Your task to perform on an android device: delete a single message in the gmail app Image 0: 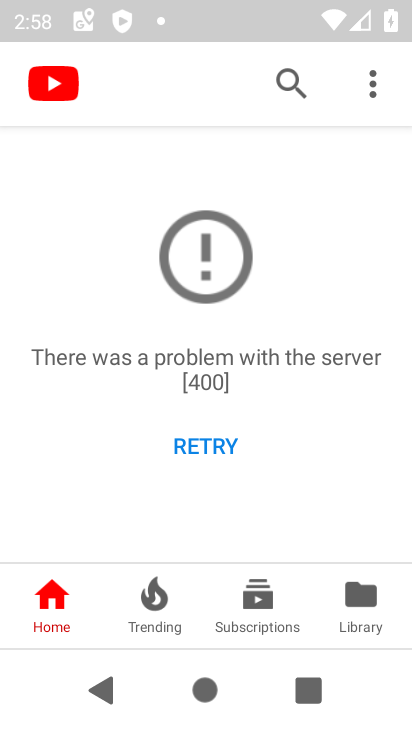
Step 0: press home button
Your task to perform on an android device: delete a single message in the gmail app Image 1: 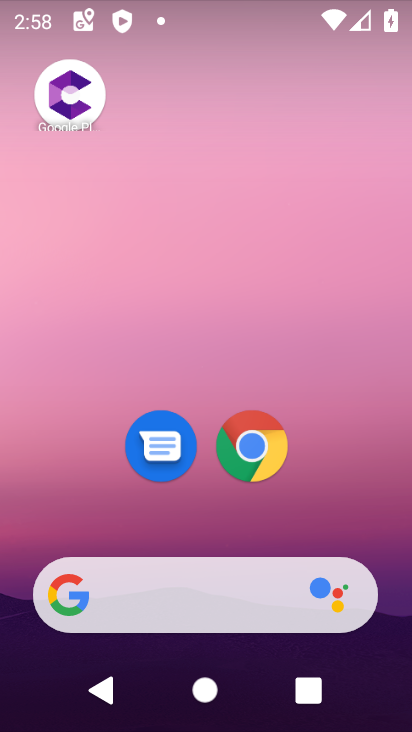
Step 1: drag from (68, 542) to (144, 163)
Your task to perform on an android device: delete a single message in the gmail app Image 2: 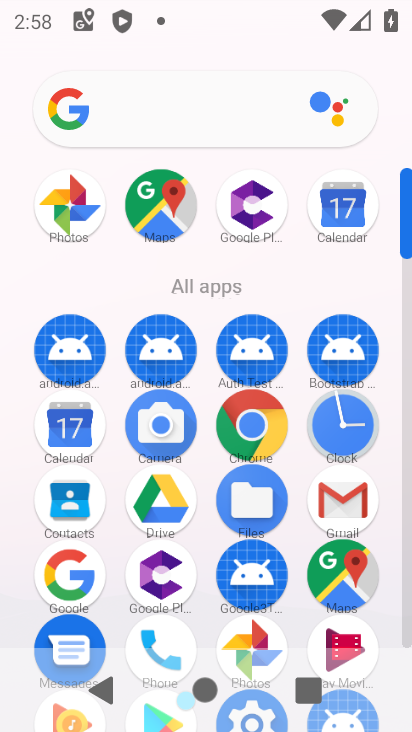
Step 2: click (339, 504)
Your task to perform on an android device: delete a single message in the gmail app Image 3: 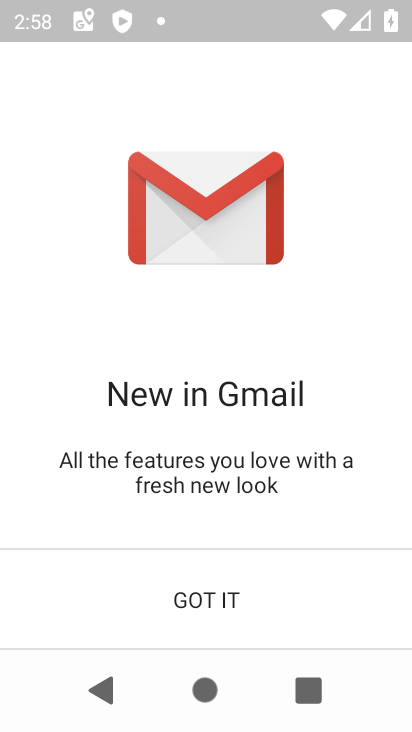
Step 3: click (221, 611)
Your task to perform on an android device: delete a single message in the gmail app Image 4: 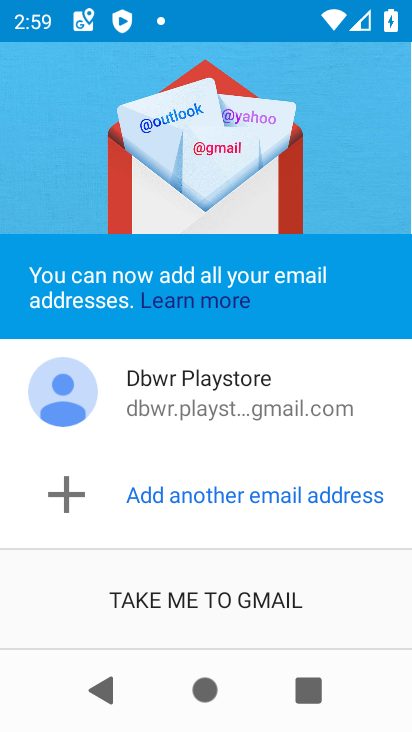
Step 4: click (222, 611)
Your task to perform on an android device: delete a single message in the gmail app Image 5: 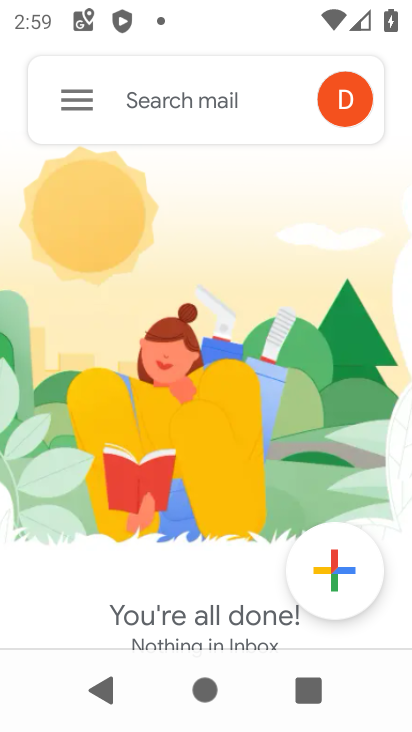
Step 5: click (67, 107)
Your task to perform on an android device: delete a single message in the gmail app Image 6: 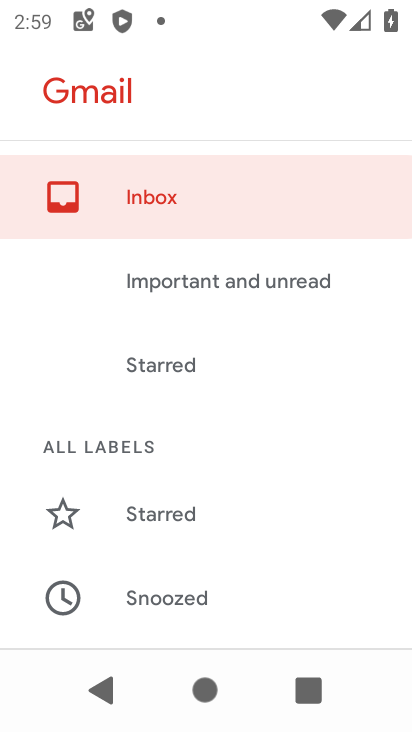
Step 6: drag from (186, 622) to (274, 63)
Your task to perform on an android device: delete a single message in the gmail app Image 7: 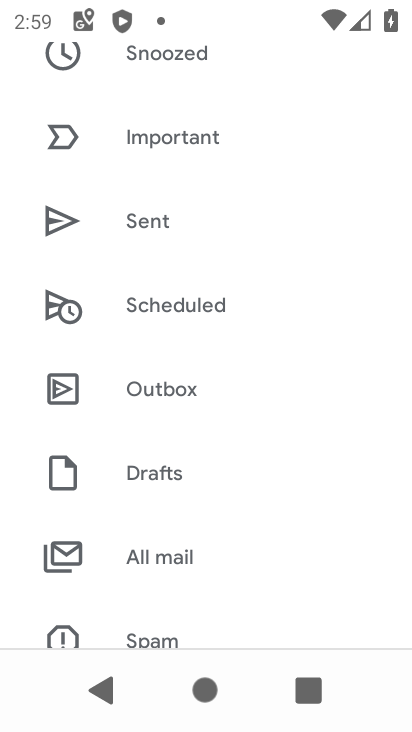
Step 7: click (190, 560)
Your task to perform on an android device: delete a single message in the gmail app Image 8: 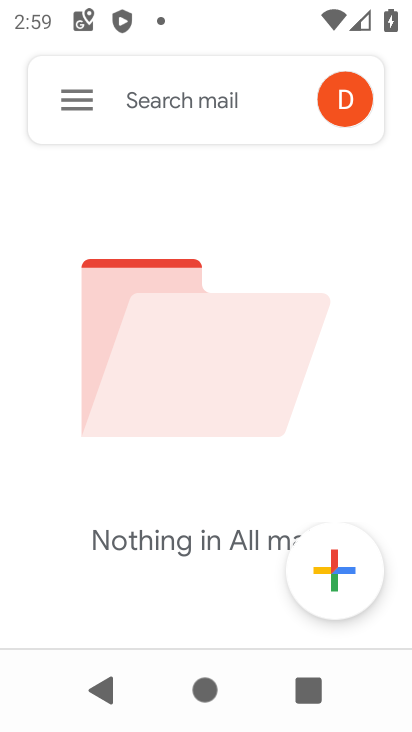
Step 8: task complete